Your task to perform on an android device: change alarm snooze length Image 0: 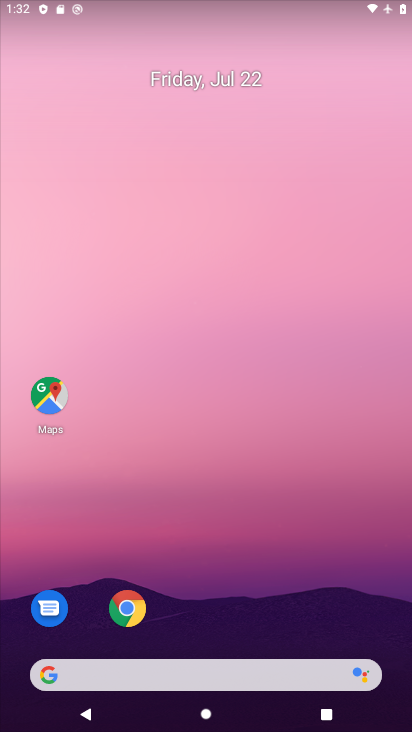
Step 0: drag from (230, 725) to (269, 116)
Your task to perform on an android device: change alarm snooze length Image 1: 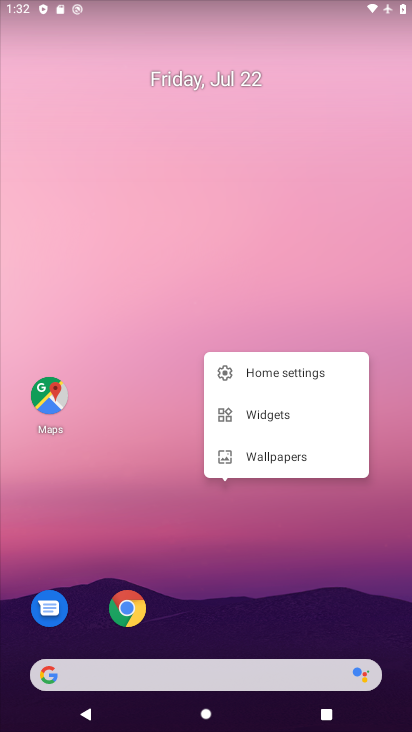
Step 1: click (260, 588)
Your task to perform on an android device: change alarm snooze length Image 2: 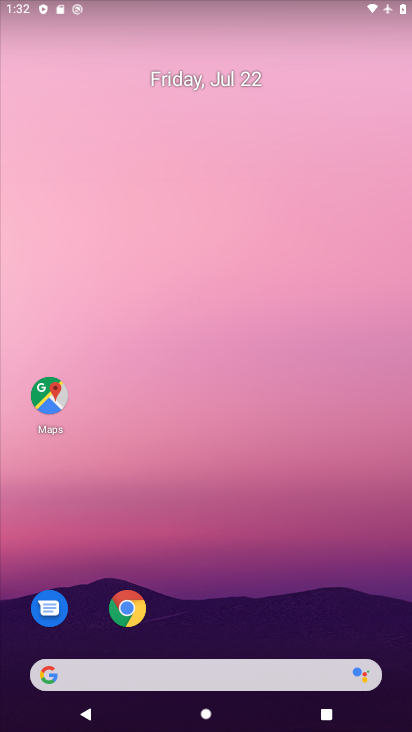
Step 2: drag from (228, 721) to (226, 139)
Your task to perform on an android device: change alarm snooze length Image 3: 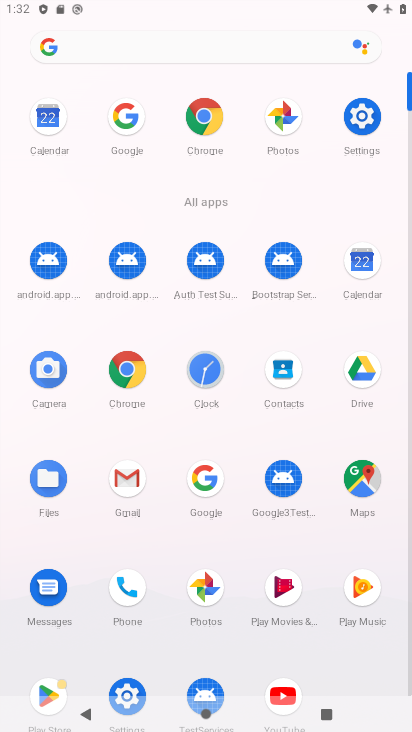
Step 3: click (207, 370)
Your task to perform on an android device: change alarm snooze length Image 4: 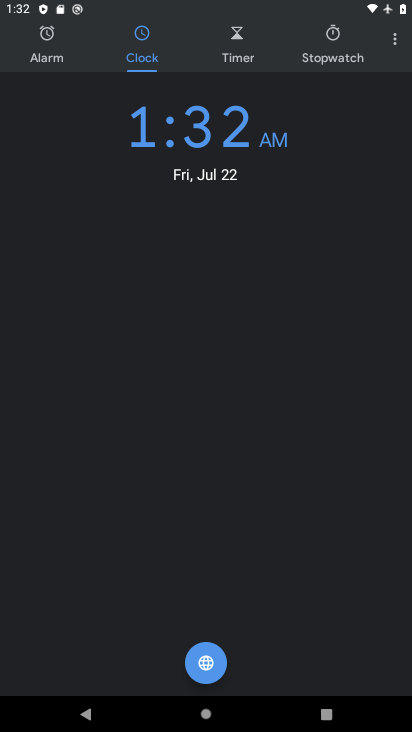
Step 4: click (395, 45)
Your task to perform on an android device: change alarm snooze length Image 5: 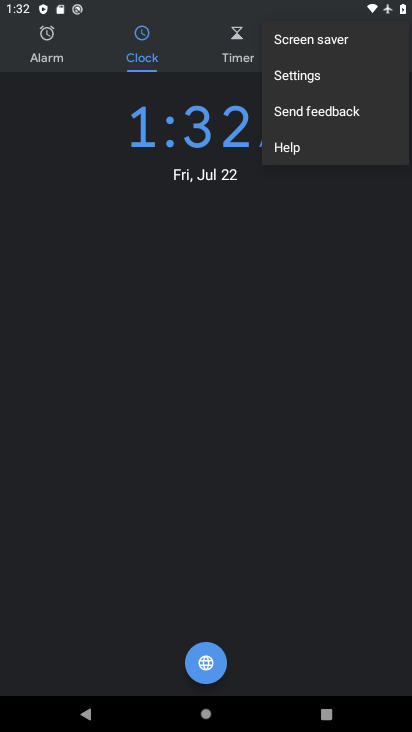
Step 5: click (293, 71)
Your task to perform on an android device: change alarm snooze length Image 6: 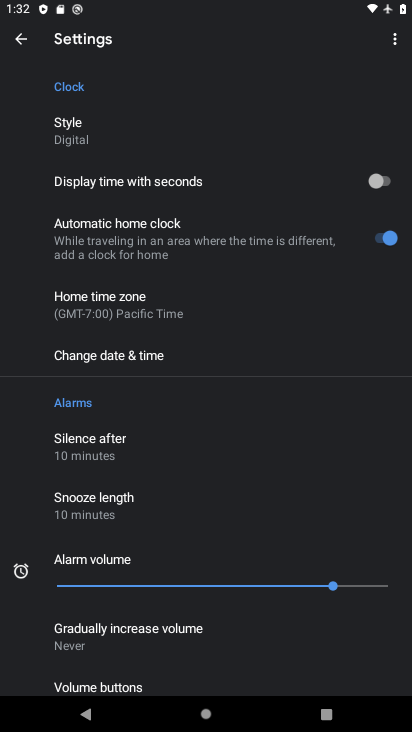
Step 6: click (96, 506)
Your task to perform on an android device: change alarm snooze length Image 7: 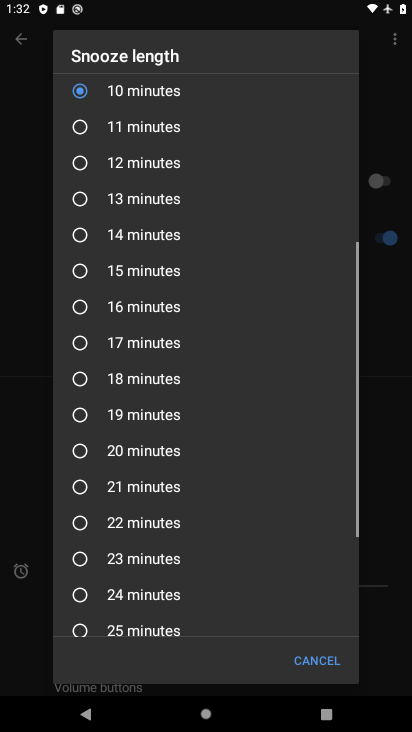
Step 7: click (76, 599)
Your task to perform on an android device: change alarm snooze length Image 8: 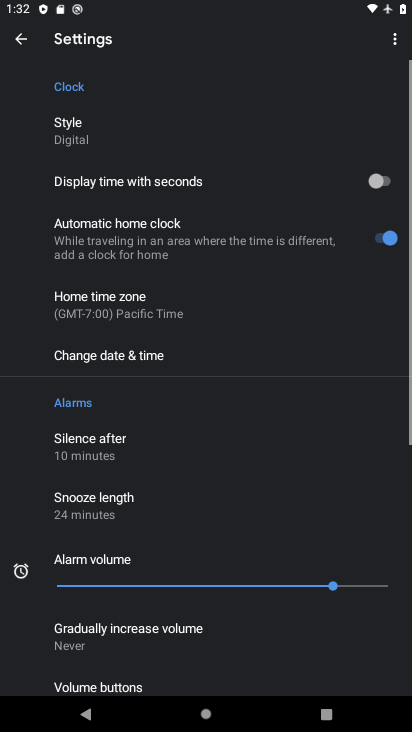
Step 8: task complete